Your task to perform on an android device: Open network settings Image 0: 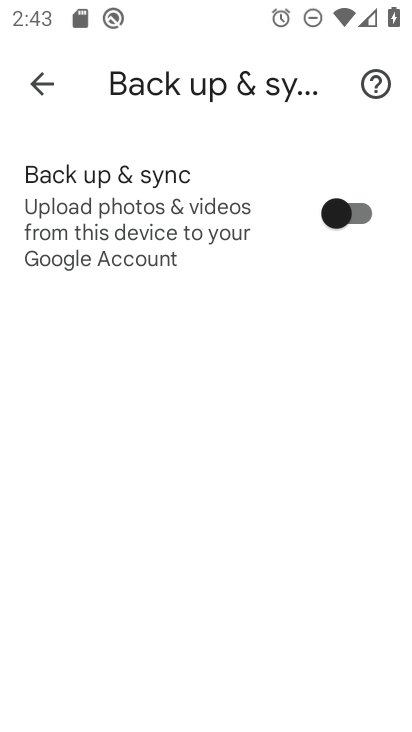
Step 0: press home button
Your task to perform on an android device: Open network settings Image 1: 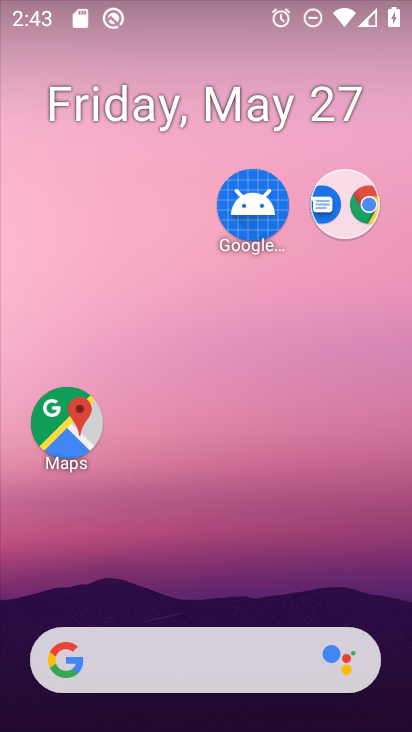
Step 1: drag from (185, 650) to (247, 252)
Your task to perform on an android device: Open network settings Image 2: 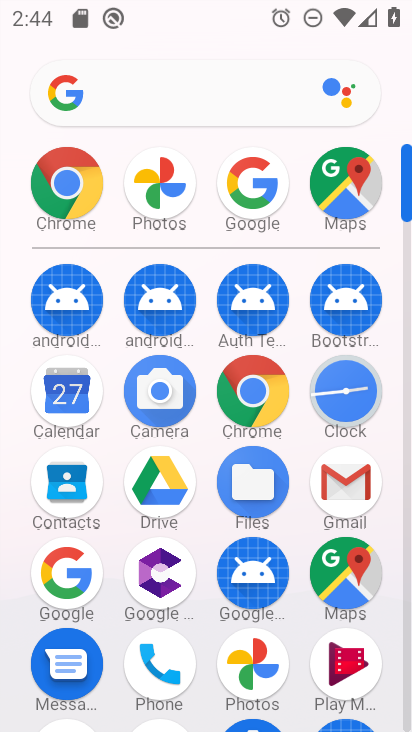
Step 2: drag from (212, 465) to (271, 274)
Your task to perform on an android device: Open network settings Image 3: 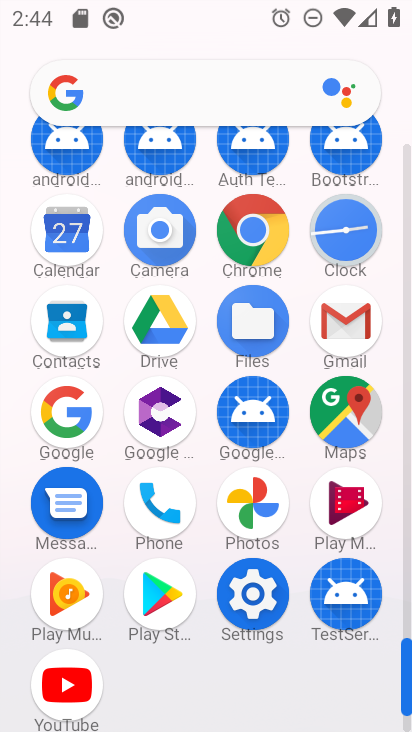
Step 3: click (264, 595)
Your task to perform on an android device: Open network settings Image 4: 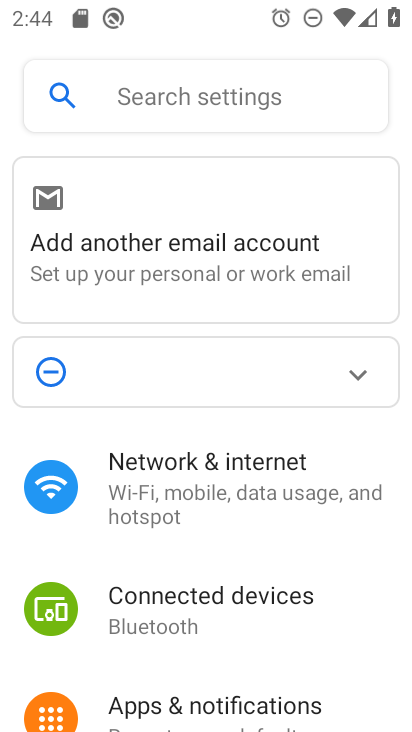
Step 4: click (272, 474)
Your task to perform on an android device: Open network settings Image 5: 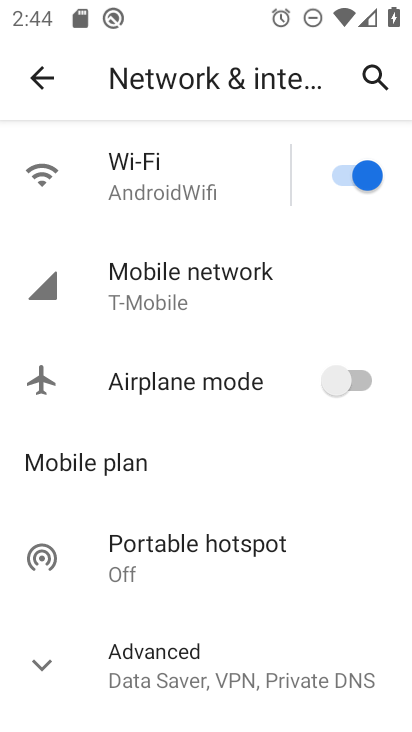
Step 5: click (253, 289)
Your task to perform on an android device: Open network settings Image 6: 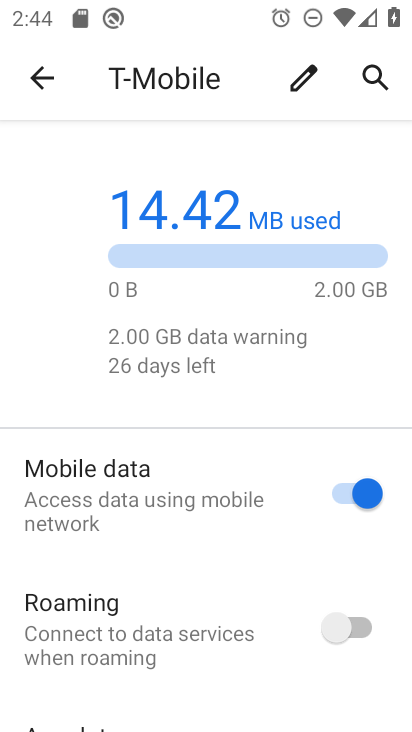
Step 6: task complete